Your task to perform on an android device: turn off airplane mode Image 0: 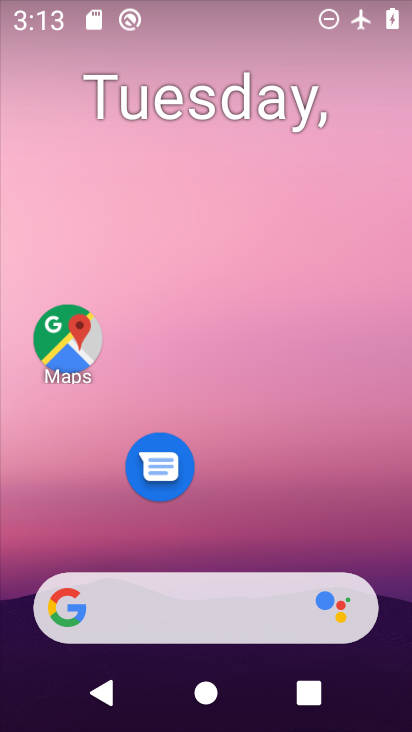
Step 0: drag from (262, 546) to (242, 12)
Your task to perform on an android device: turn off airplane mode Image 1: 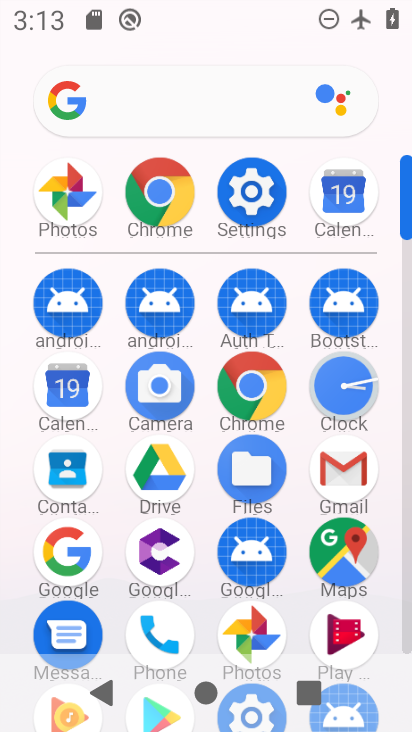
Step 1: drag from (204, 507) to (218, 301)
Your task to perform on an android device: turn off airplane mode Image 2: 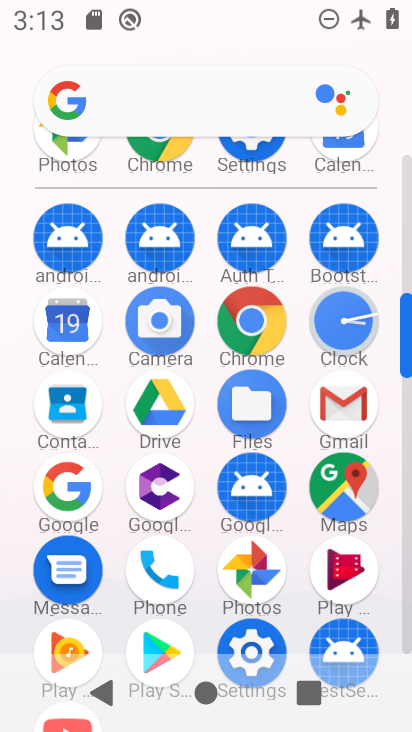
Step 2: click (241, 634)
Your task to perform on an android device: turn off airplane mode Image 3: 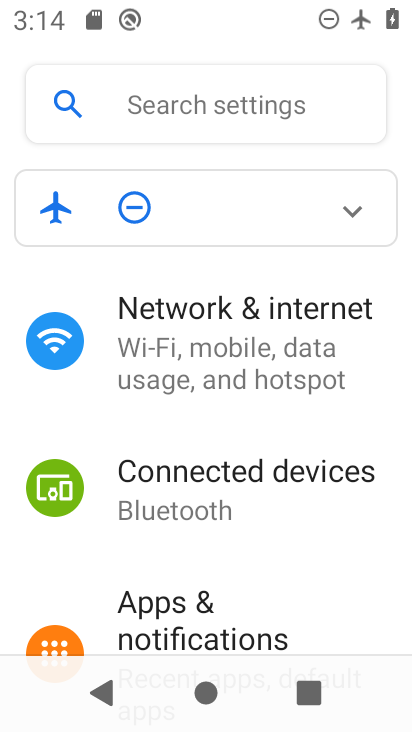
Step 3: click (198, 386)
Your task to perform on an android device: turn off airplane mode Image 4: 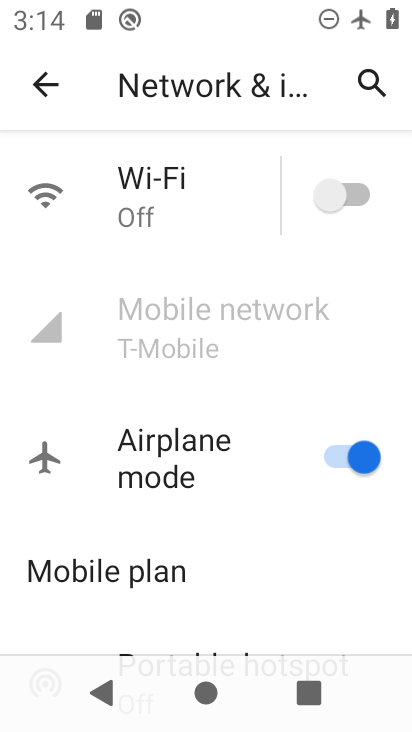
Step 4: click (345, 468)
Your task to perform on an android device: turn off airplane mode Image 5: 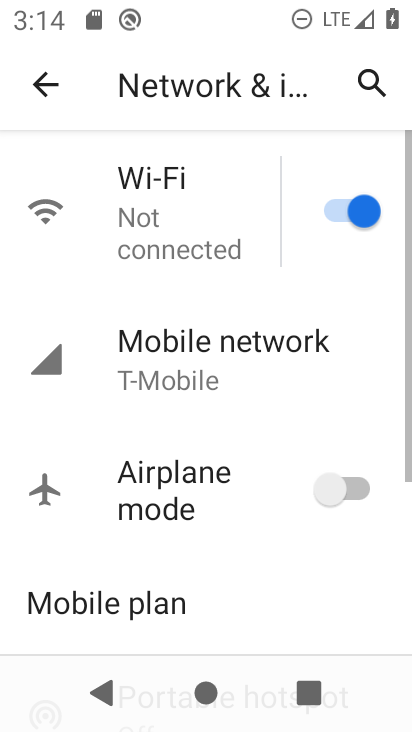
Step 5: task complete